Your task to perform on an android device: Open Reddit.com Image 0: 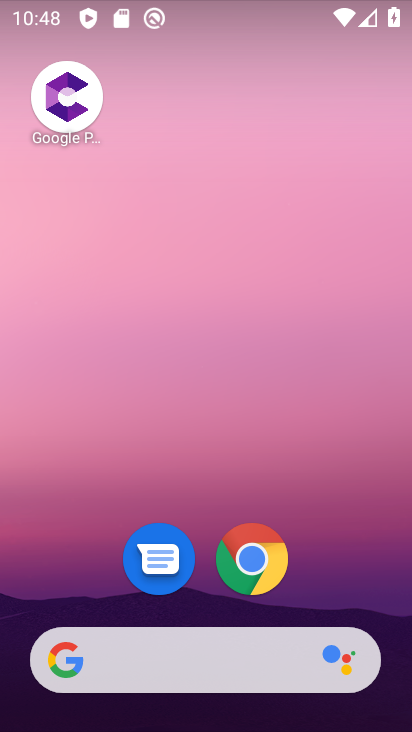
Step 0: click (263, 576)
Your task to perform on an android device: Open Reddit.com Image 1: 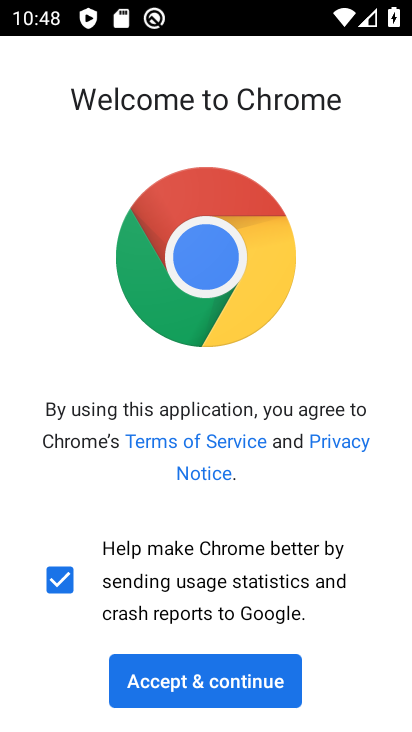
Step 1: click (256, 659)
Your task to perform on an android device: Open Reddit.com Image 2: 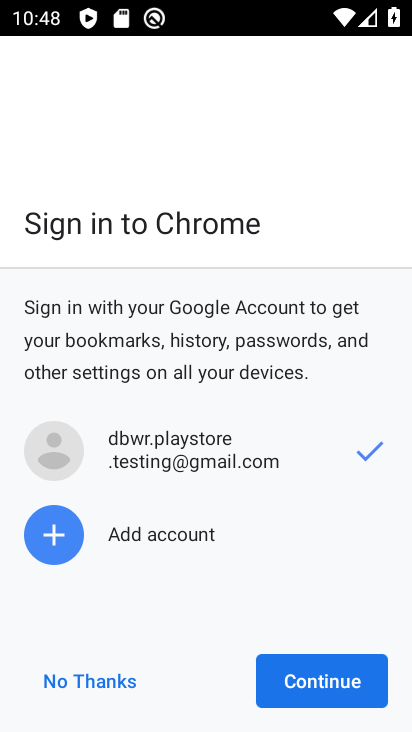
Step 2: click (319, 679)
Your task to perform on an android device: Open Reddit.com Image 3: 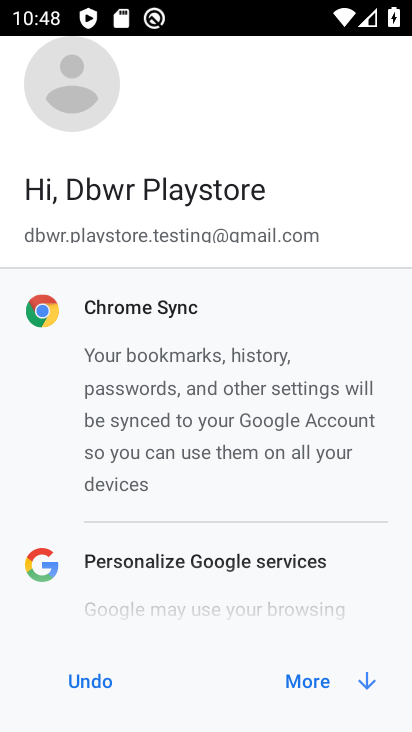
Step 3: click (333, 714)
Your task to perform on an android device: Open Reddit.com Image 4: 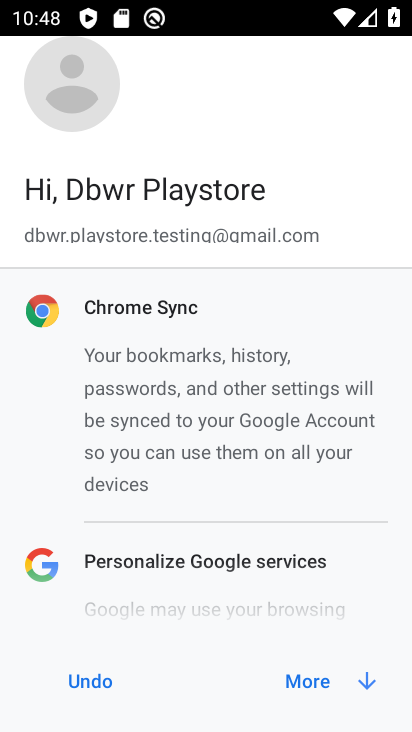
Step 4: click (337, 683)
Your task to perform on an android device: Open Reddit.com Image 5: 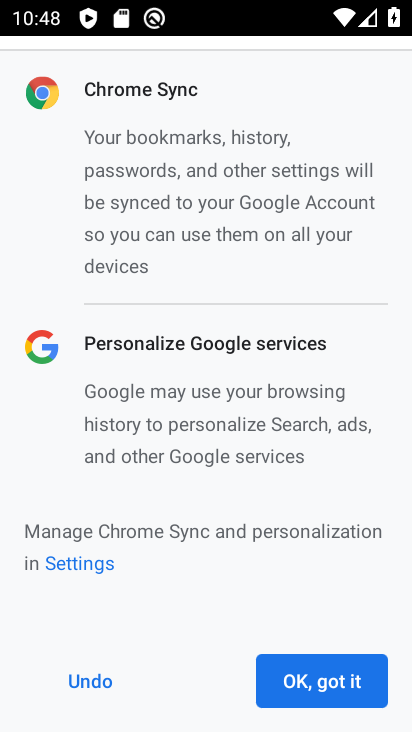
Step 5: click (337, 683)
Your task to perform on an android device: Open Reddit.com Image 6: 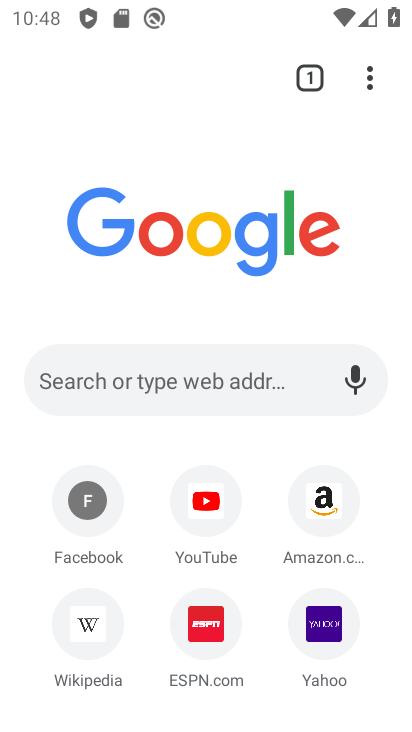
Step 6: click (256, 374)
Your task to perform on an android device: Open Reddit.com Image 7: 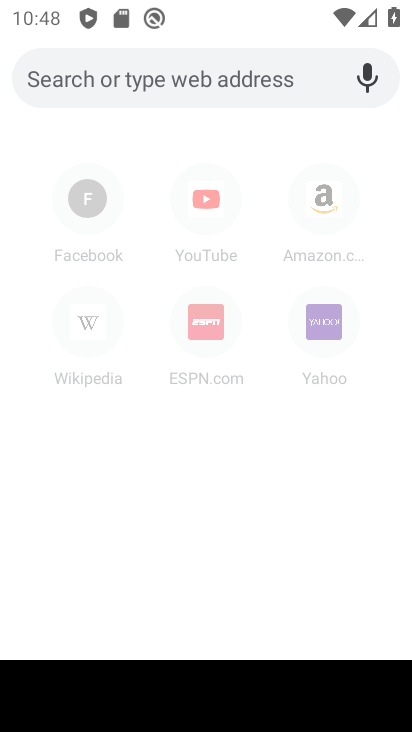
Step 7: type "reddit"
Your task to perform on an android device: Open Reddit.com Image 8: 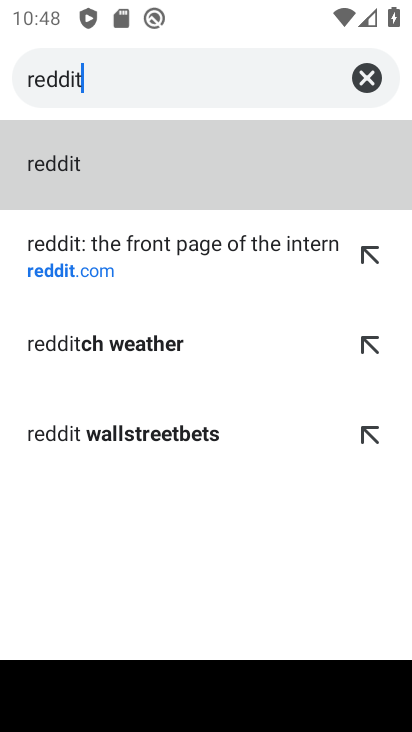
Step 8: click (76, 268)
Your task to perform on an android device: Open Reddit.com Image 9: 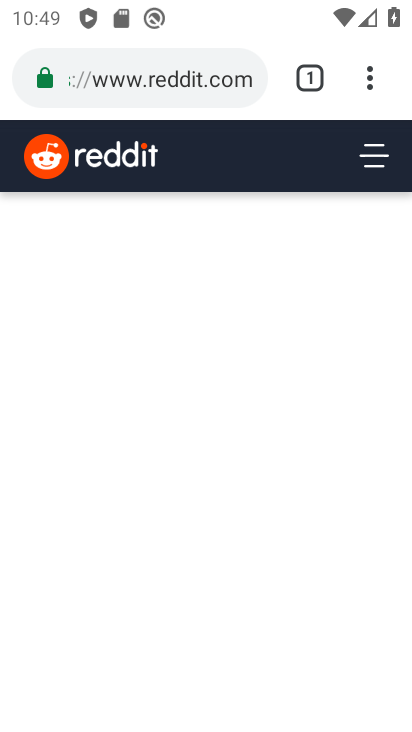
Step 9: task complete